Your task to perform on an android device: open a new tab in the chrome app Image 0: 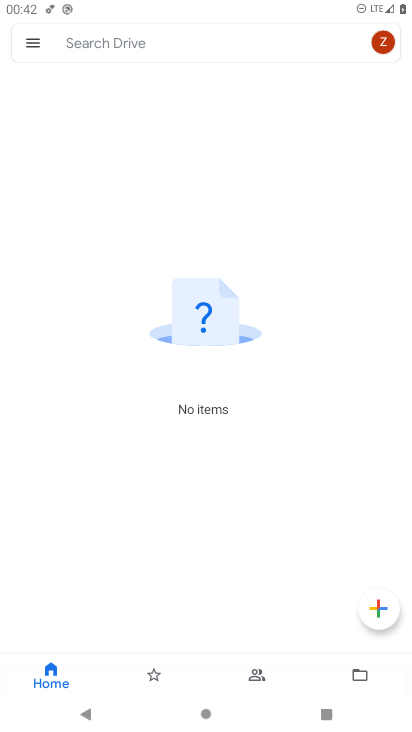
Step 0: press home button
Your task to perform on an android device: open a new tab in the chrome app Image 1: 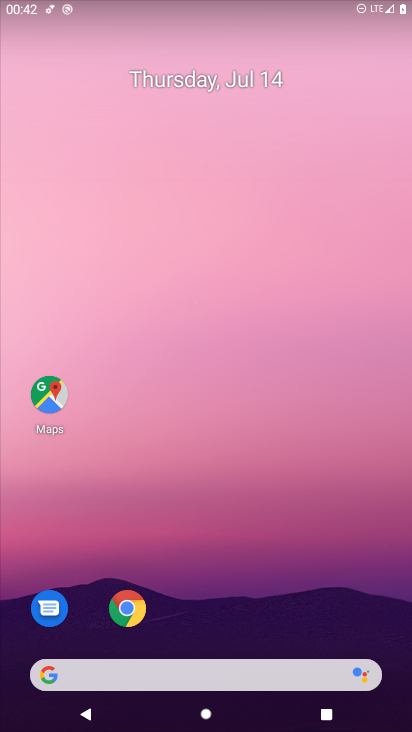
Step 1: drag from (243, 593) to (243, 197)
Your task to perform on an android device: open a new tab in the chrome app Image 2: 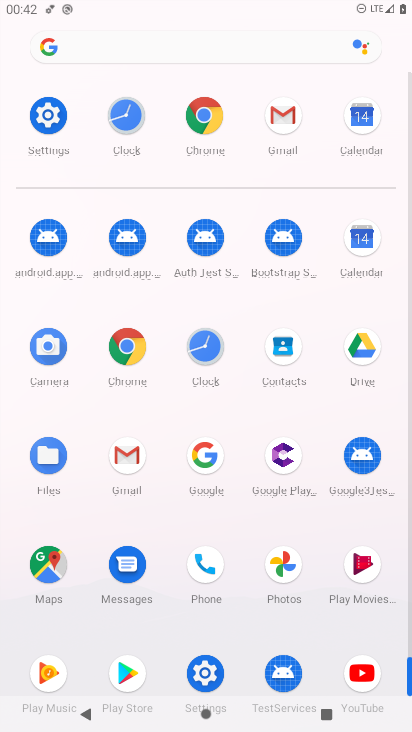
Step 2: click (201, 121)
Your task to perform on an android device: open a new tab in the chrome app Image 3: 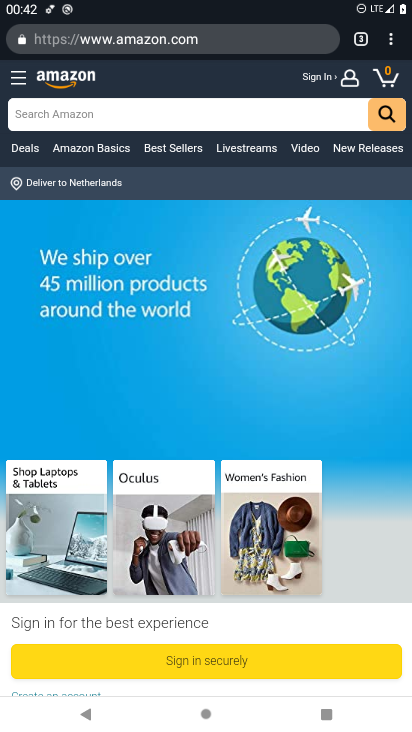
Step 3: click (360, 42)
Your task to perform on an android device: open a new tab in the chrome app Image 4: 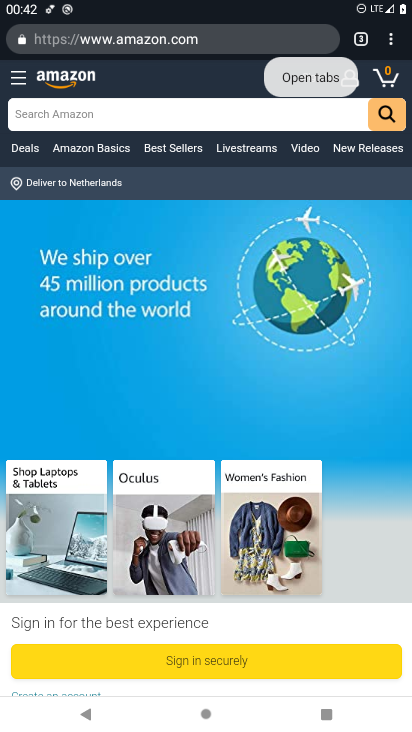
Step 4: click (360, 42)
Your task to perform on an android device: open a new tab in the chrome app Image 5: 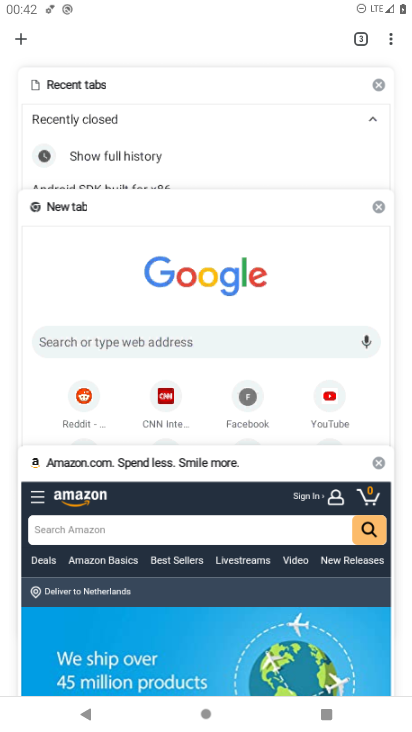
Step 5: click (19, 46)
Your task to perform on an android device: open a new tab in the chrome app Image 6: 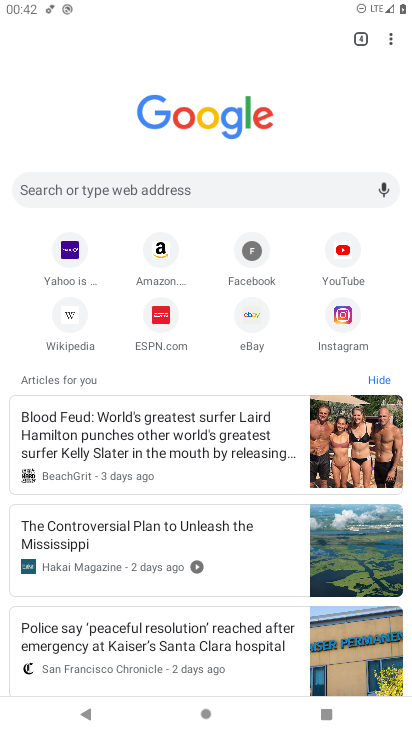
Step 6: task complete